Your task to perform on an android device: turn pop-ups on in chrome Image 0: 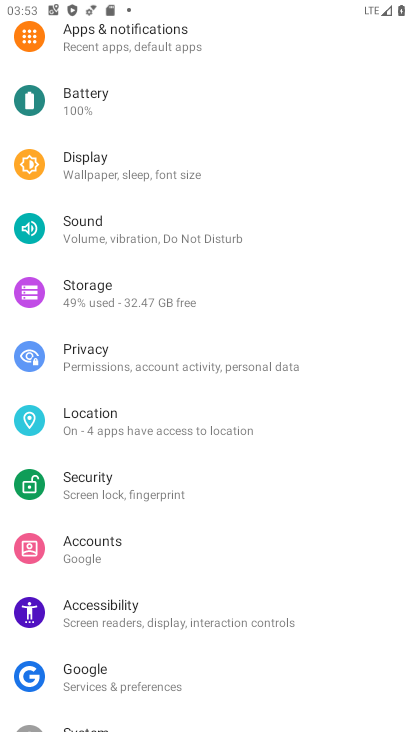
Step 0: press home button
Your task to perform on an android device: turn pop-ups on in chrome Image 1: 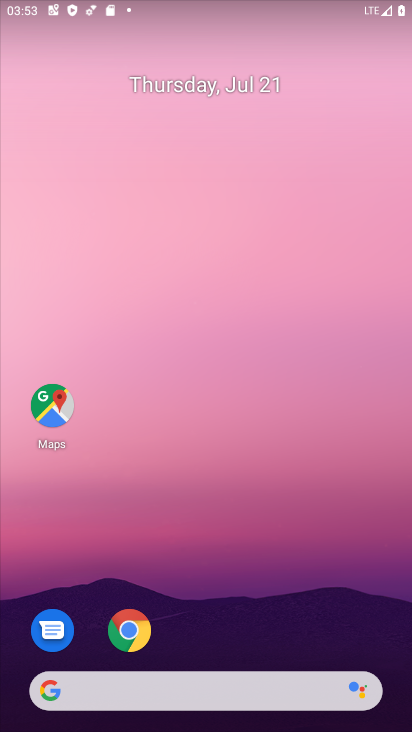
Step 1: click (140, 615)
Your task to perform on an android device: turn pop-ups on in chrome Image 2: 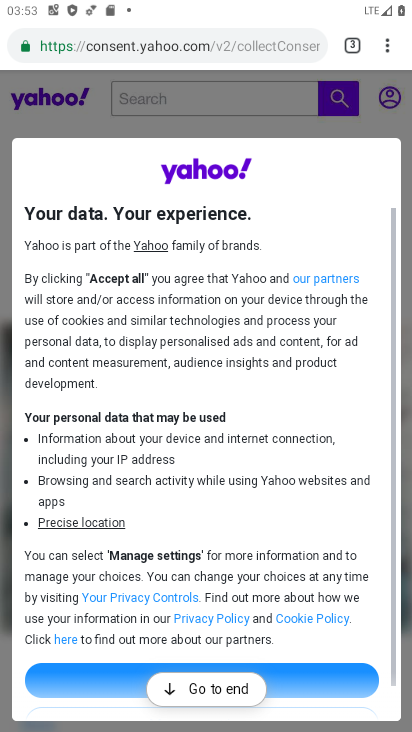
Step 2: click (386, 60)
Your task to perform on an android device: turn pop-ups on in chrome Image 3: 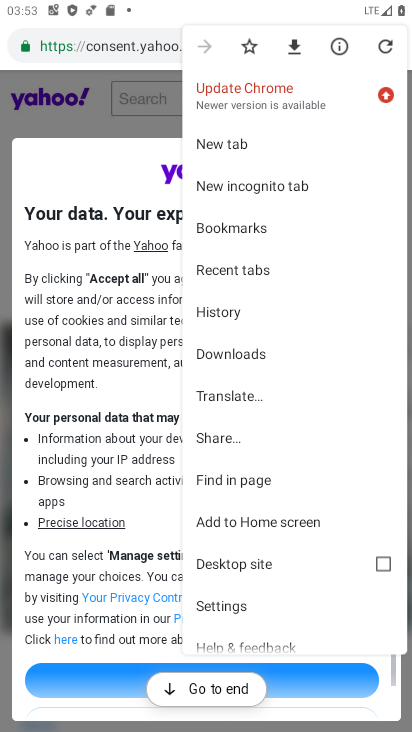
Step 3: click (257, 615)
Your task to perform on an android device: turn pop-ups on in chrome Image 4: 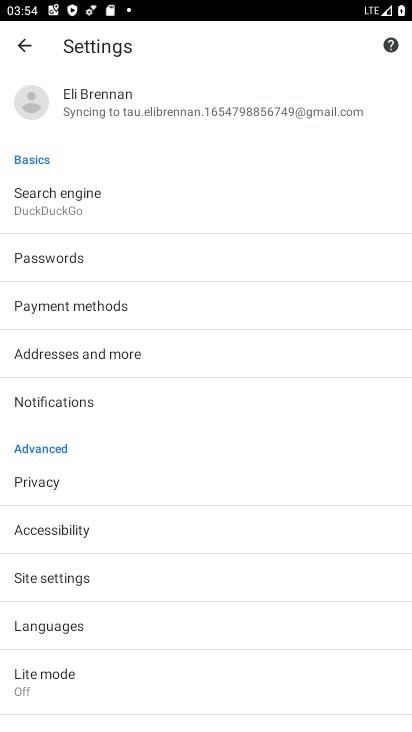
Step 4: click (47, 585)
Your task to perform on an android device: turn pop-ups on in chrome Image 5: 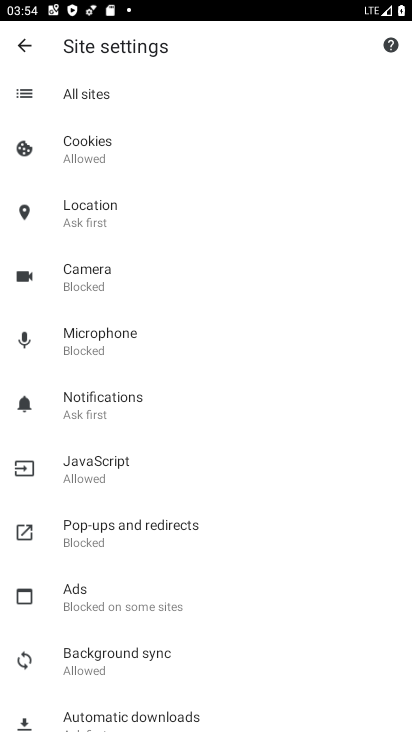
Step 5: click (197, 541)
Your task to perform on an android device: turn pop-ups on in chrome Image 6: 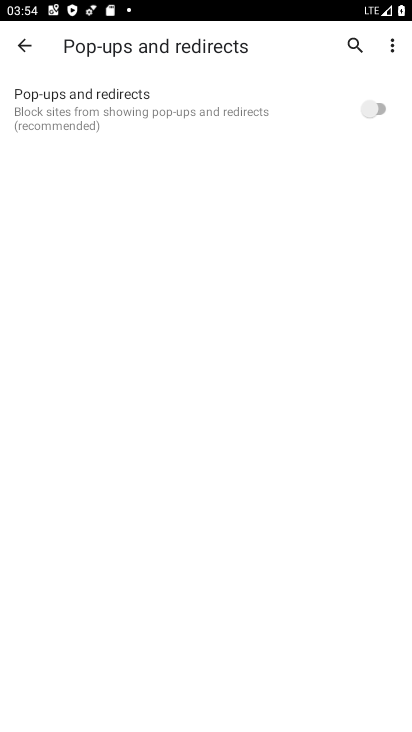
Step 6: click (372, 112)
Your task to perform on an android device: turn pop-ups on in chrome Image 7: 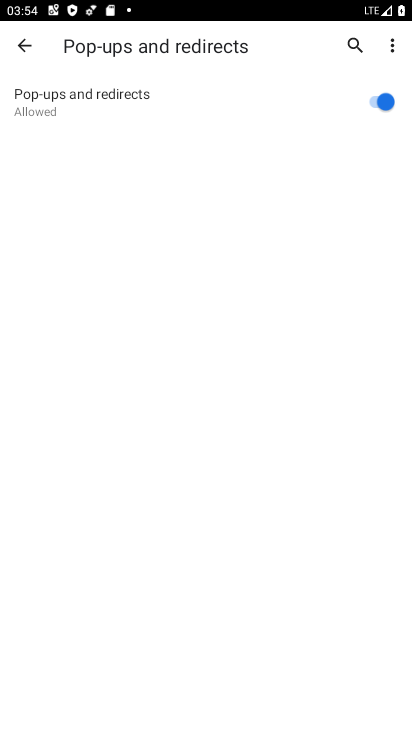
Step 7: task complete